Your task to perform on an android device: Search for seafood restaurants on Google Maps Image 0: 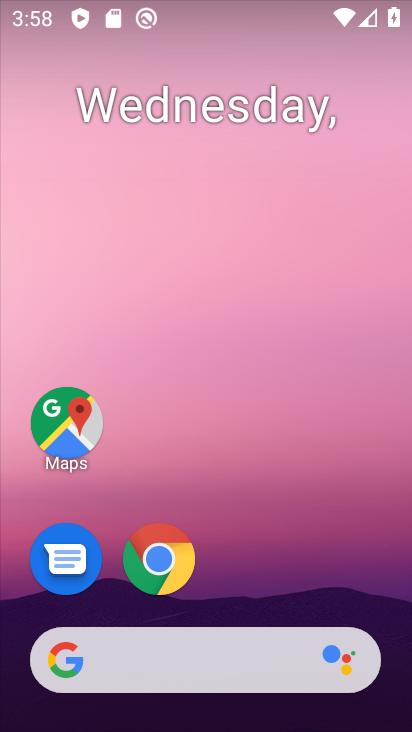
Step 0: click (74, 421)
Your task to perform on an android device: Search for seafood restaurants on Google Maps Image 1: 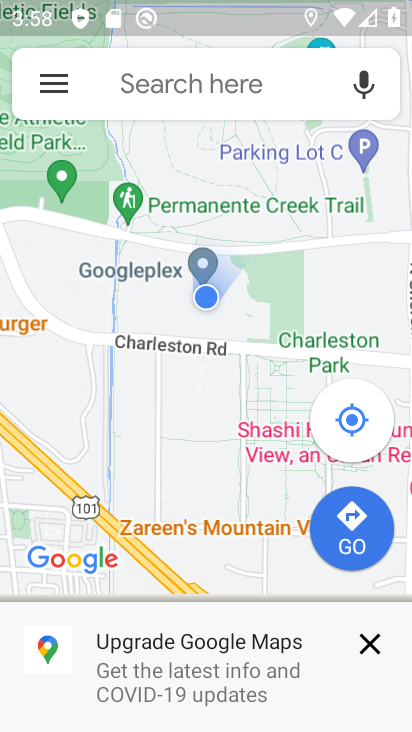
Step 1: click (178, 88)
Your task to perform on an android device: Search for seafood restaurants on Google Maps Image 2: 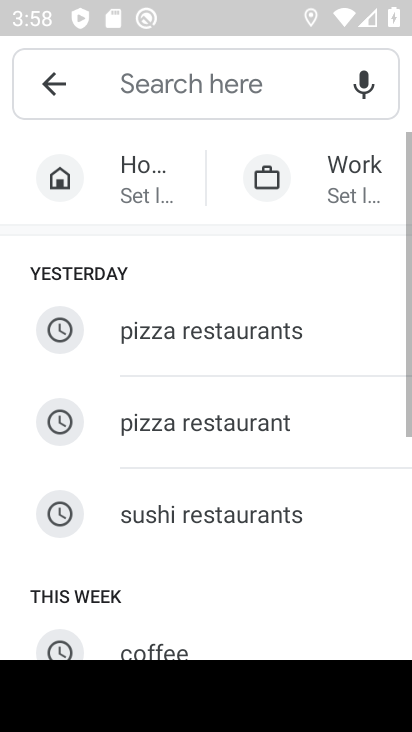
Step 2: drag from (198, 557) to (284, 101)
Your task to perform on an android device: Search for seafood restaurants on Google Maps Image 3: 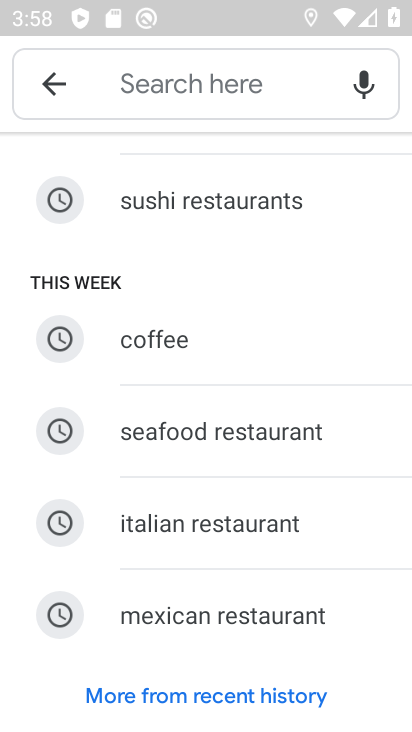
Step 3: click (159, 425)
Your task to perform on an android device: Search for seafood restaurants on Google Maps Image 4: 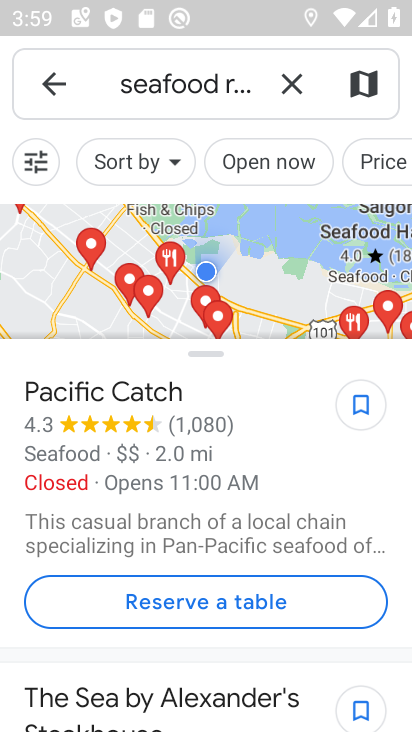
Step 4: task complete